Your task to perform on an android device: turn notification dots on Image 0: 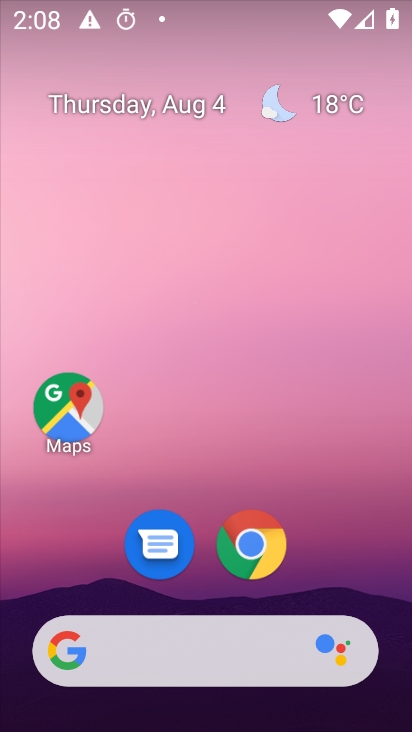
Step 0: drag from (390, 698) to (346, 40)
Your task to perform on an android device: turn notification dots on Image 1: 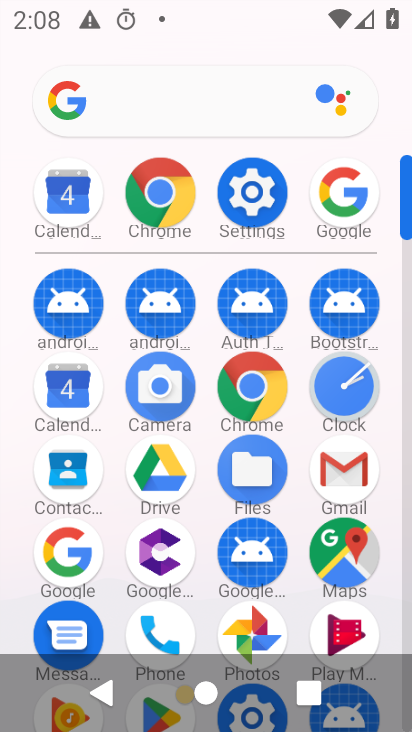
Step 1: click (247, 181)
Your task to perform on an android device: turn notification dots on Image 2: 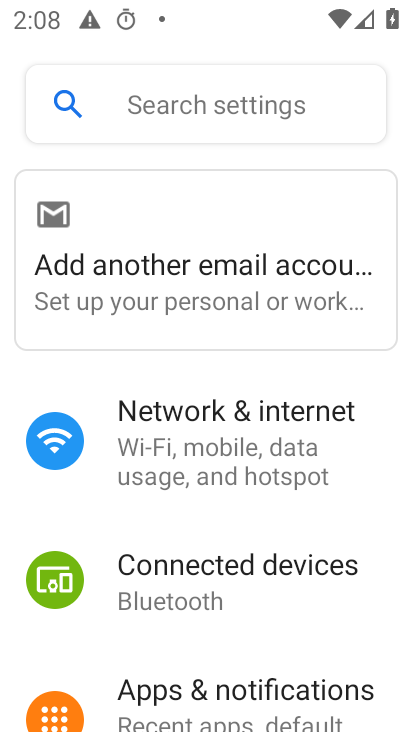
Step 2: click (193, 689)
Your task to perform on an android device: turn notification dots on Image 3: 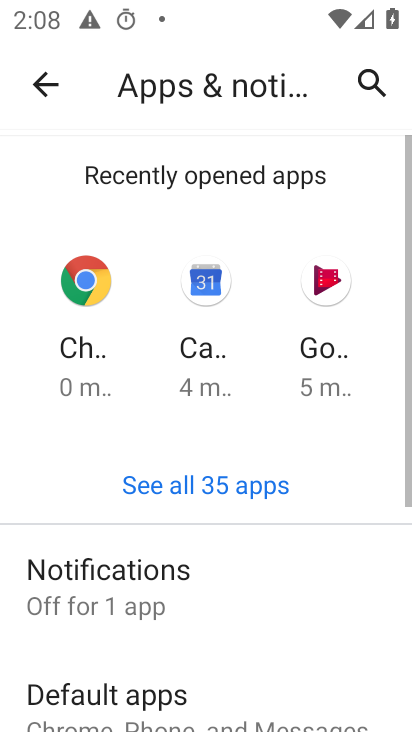
Step 3: click (80, 591)
Your task to perform on an android device: turn notification dots on Image 4: 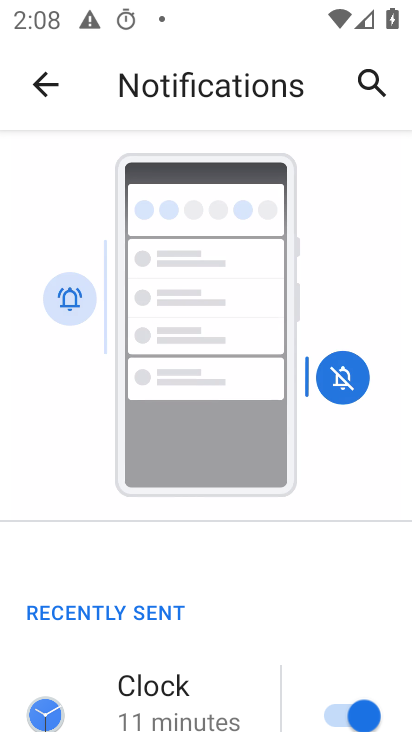
Step 4: drag from (251, 690) to (296, 201)
Your task to perform on an android device: turn notification dots on Image 5: 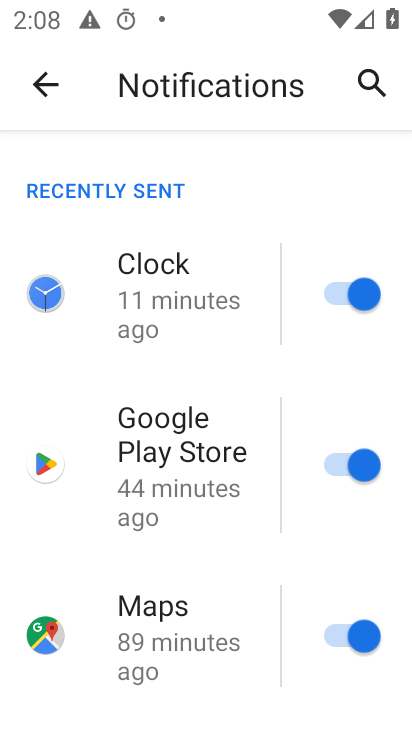
Step 5: drag from (245, 682) to (281, 286)
Your task to perform on an android device: turn notification dots on Image 6: 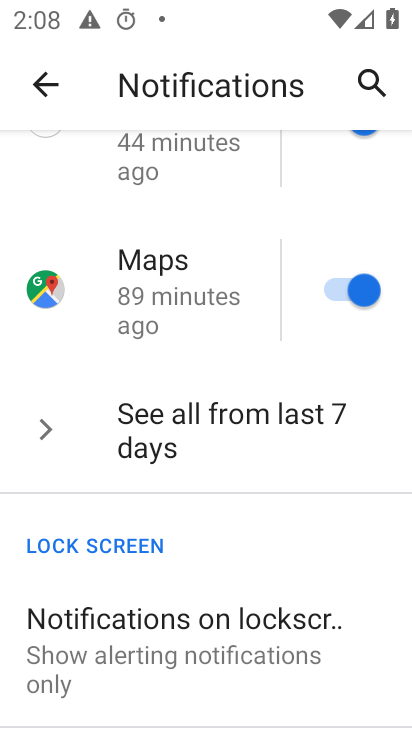
Step 6: click (124, 631)
Your task to perform on an android device: turn notification dots on Image 7: 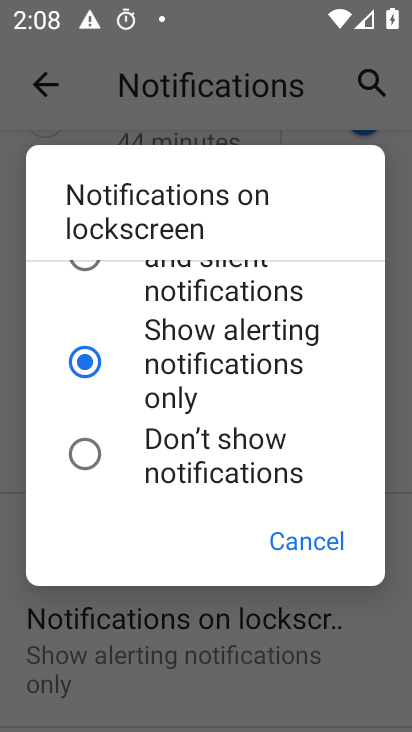
Step 7: click (297, 535)
Your task to perform on an android device: turn notification dots on Image 8: 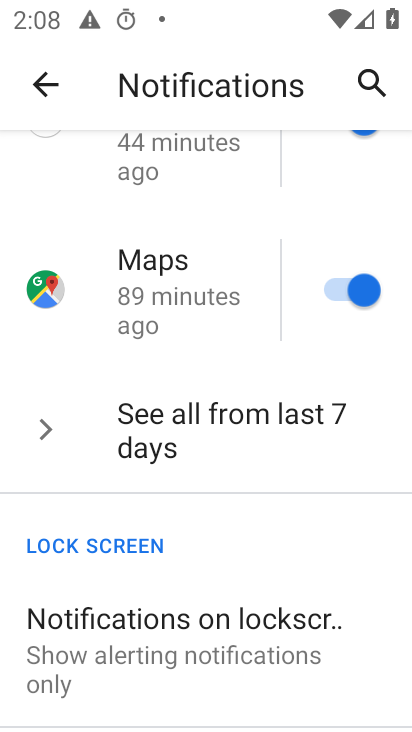
Step 8: drag from (291, 674) to (285, 226)
Your task to perform on an android device: turn notification dots on Image 9: 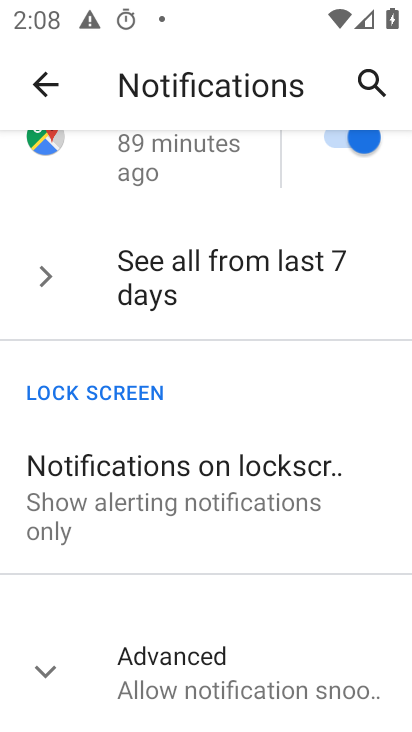
Step 9: click (45, 665)
Your task to perform on an android device: turn notification dots on Image 10: 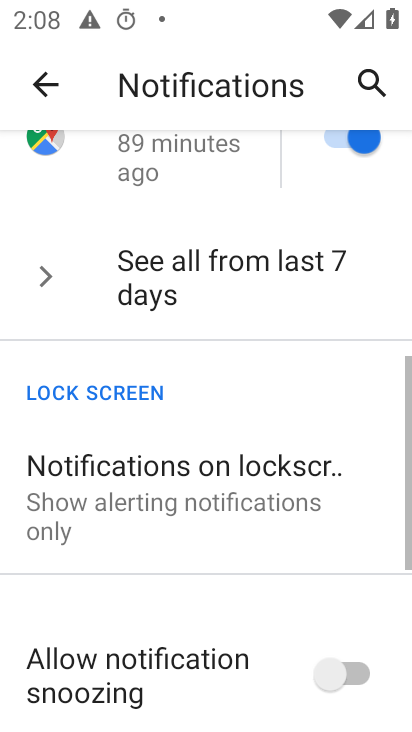
Step 10: task complete